Your task to perform on an android device: Go to Reddit.com Image 0: 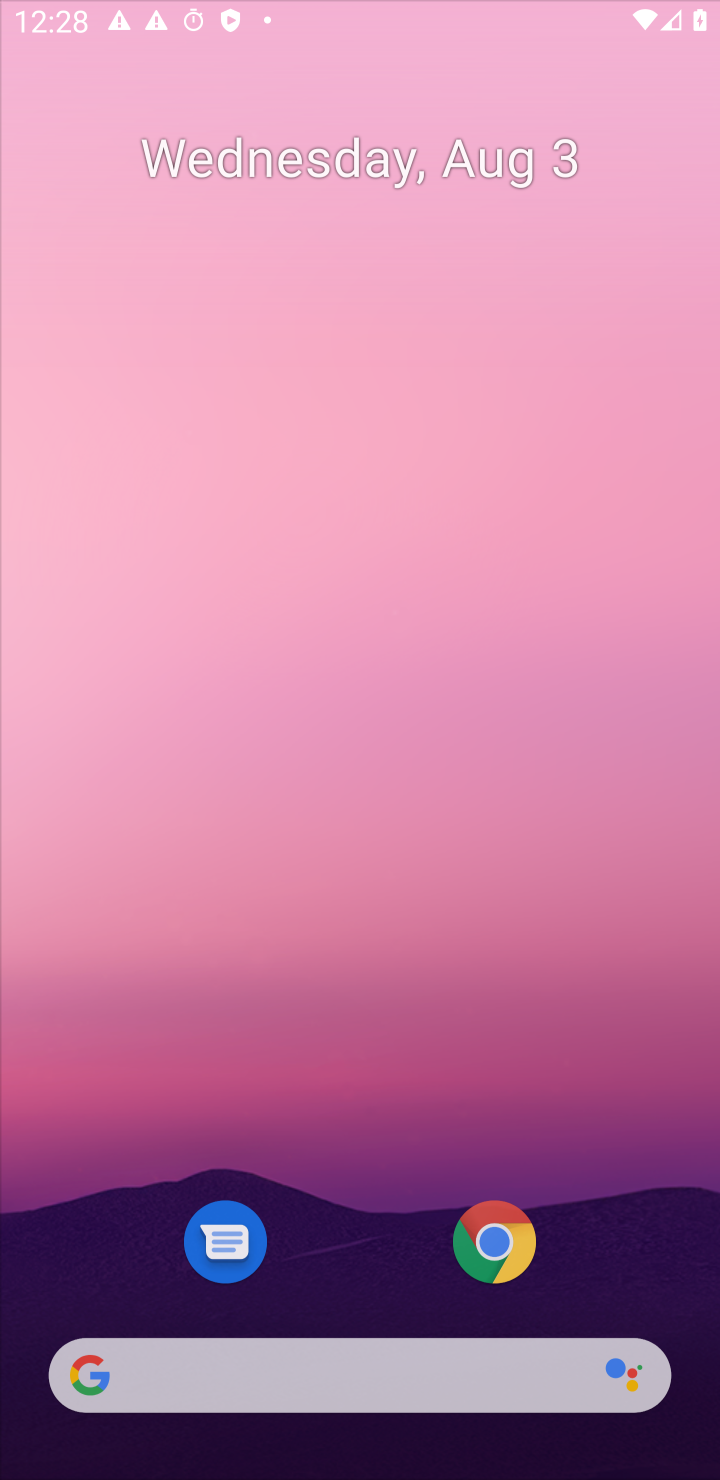
Step 0: press home button
Your task to perform on an android device: Go to Reddit.com Image 1: 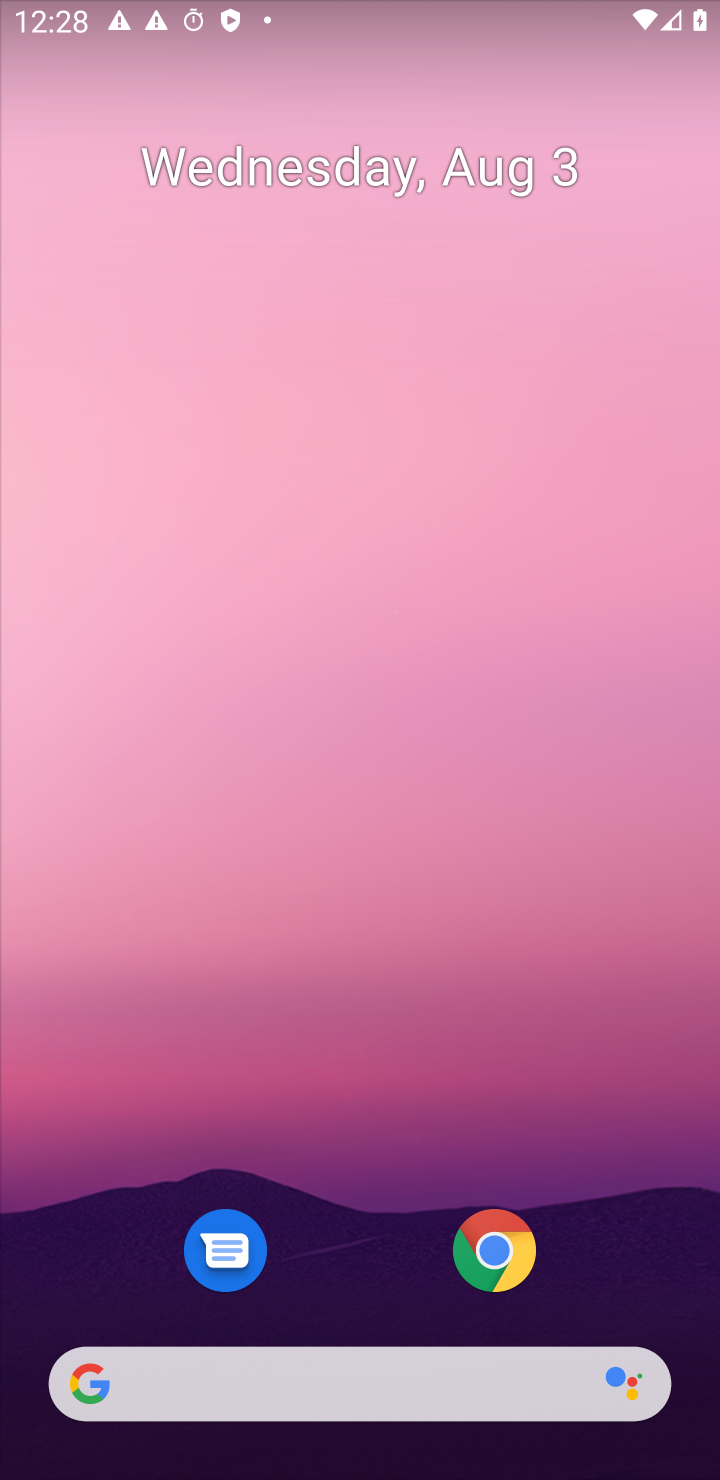
Step 1: click (475, 1249)
Your task to perform on an android device: Go to Reddit.com Image 2: 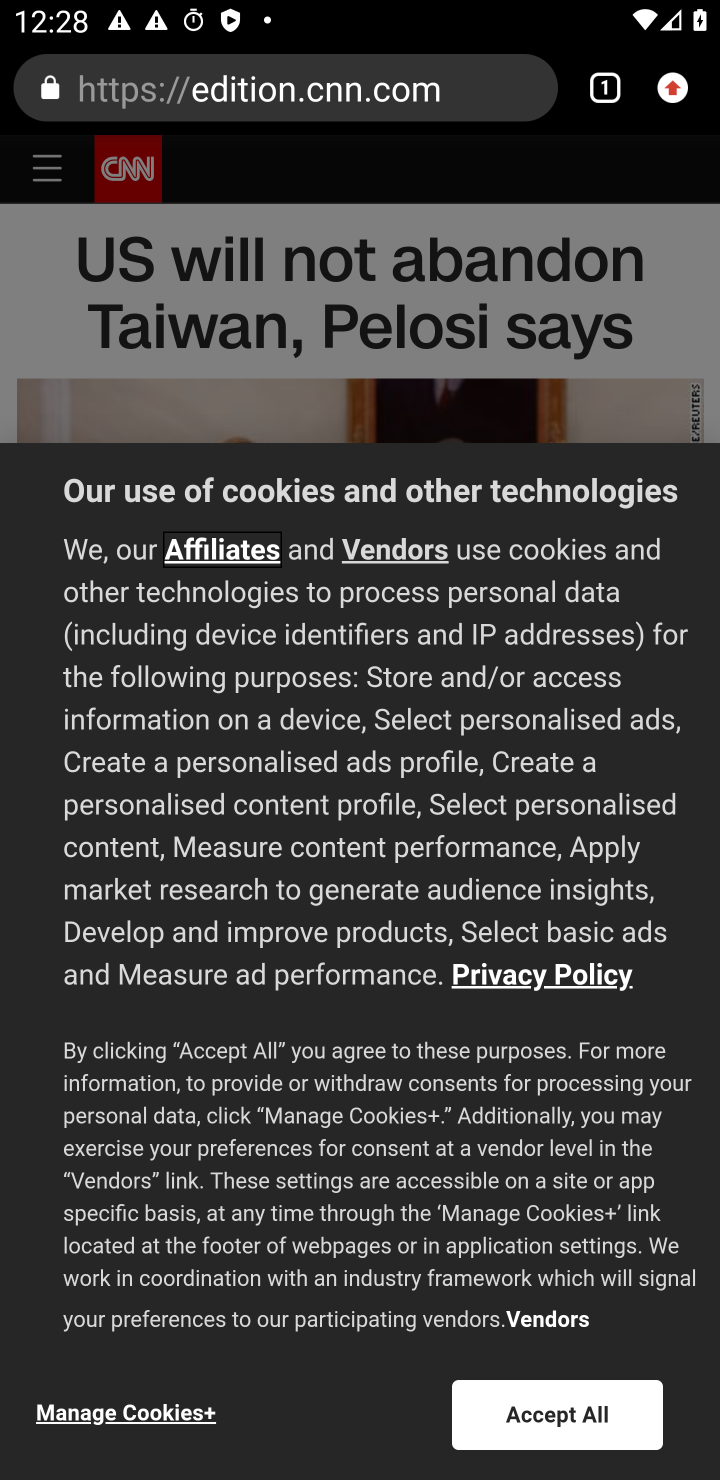
Step 2: click (380, 103)
Your task to perform on an android device: Go to Reddit.com Image 3: 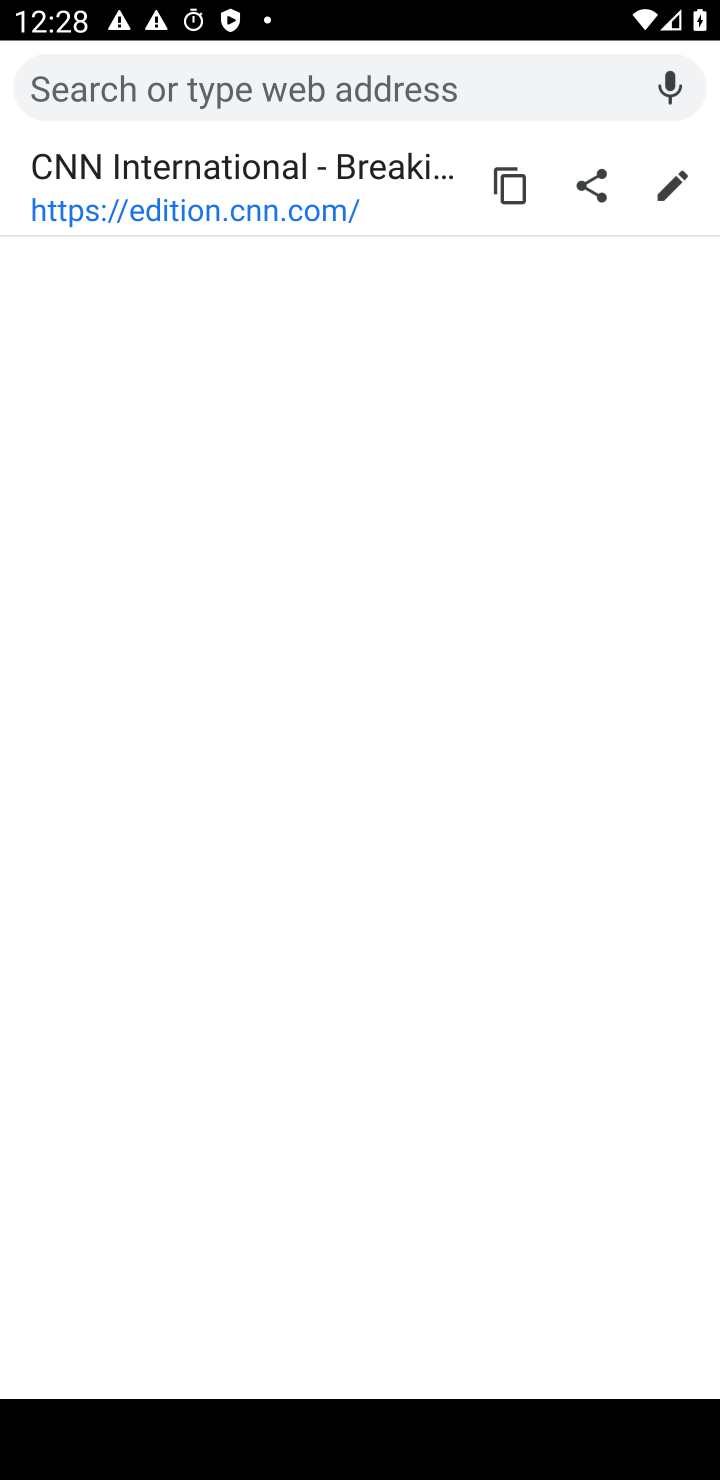
Step 3: type "reddit.com"
Your task to perform on an android device: Go to Reddit.com Image 4: 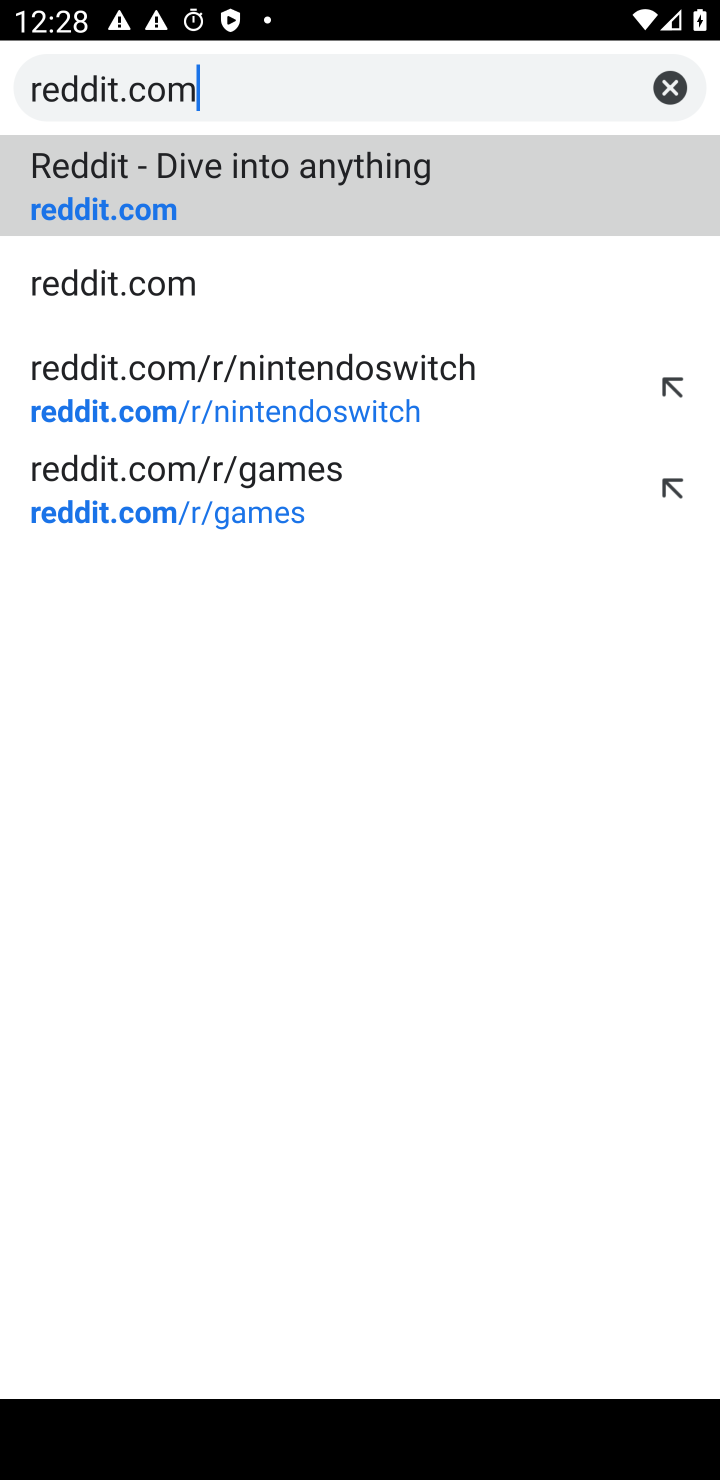
Step 4: click (327, 169)
Your task to perform on an android device: Go to Reddit.com Image 5: 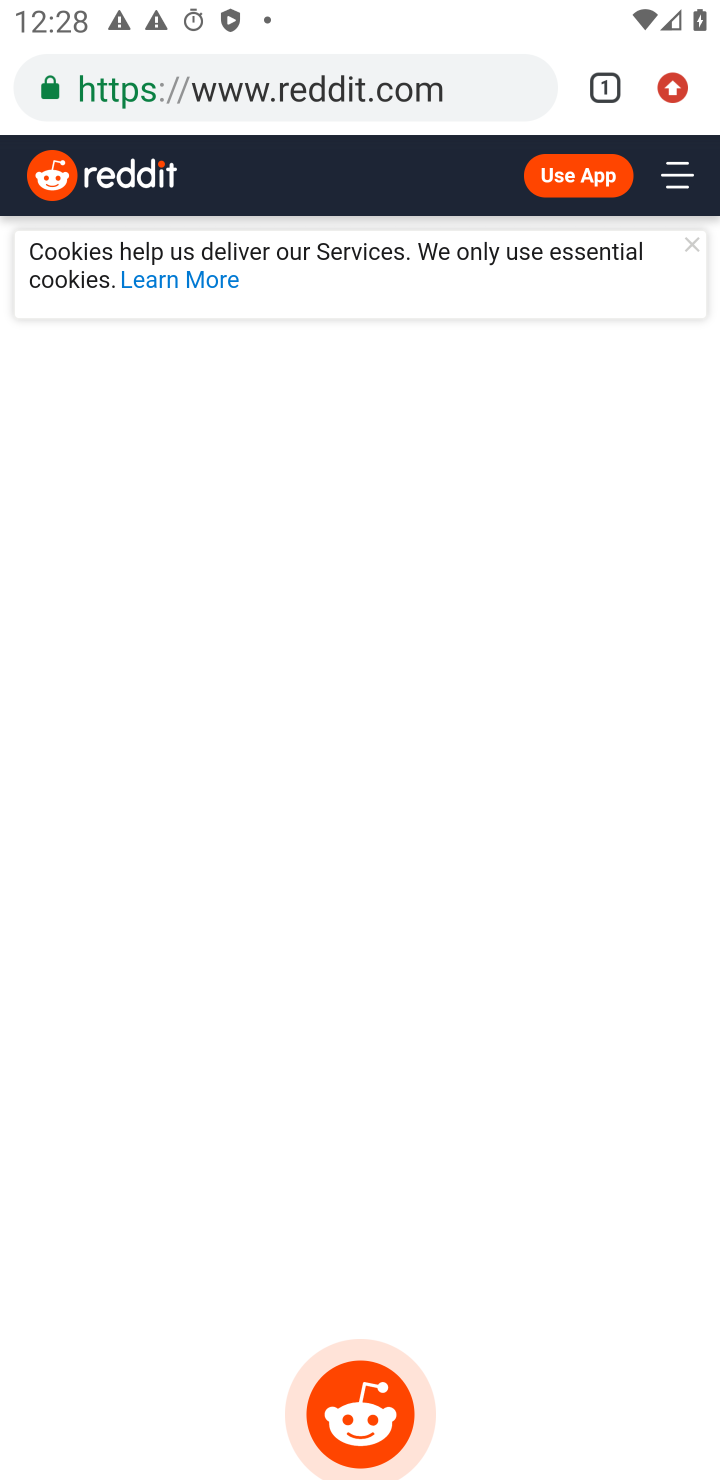
Step 5: task complete